Your task to perform on an android device: make emails show in primary in the gmail app Image 0: 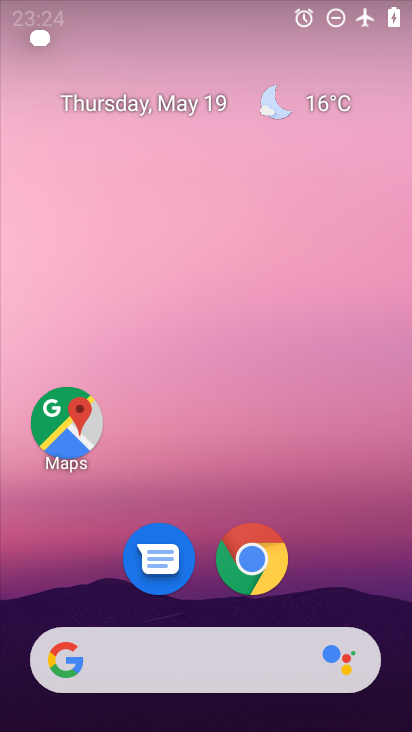
Step 0: drag from (218, 721) to (213, 180)
Your task to perform on an android device: make emails show in primary in the gmail app Image 1: 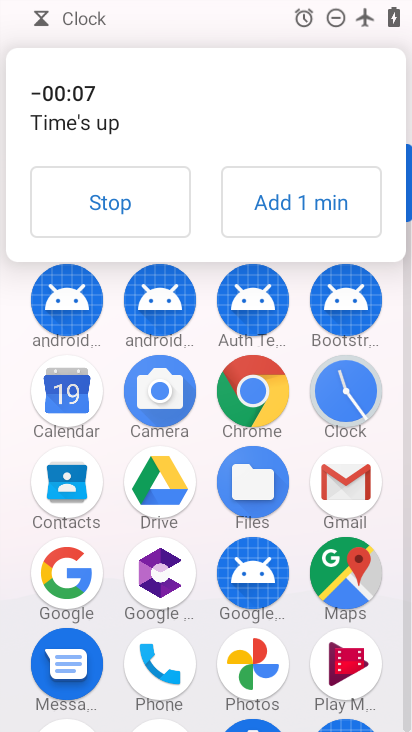
Step 1: click (346, 479)
Your task to perform on an android device: make emails show in primary in the gmail app Image 2: 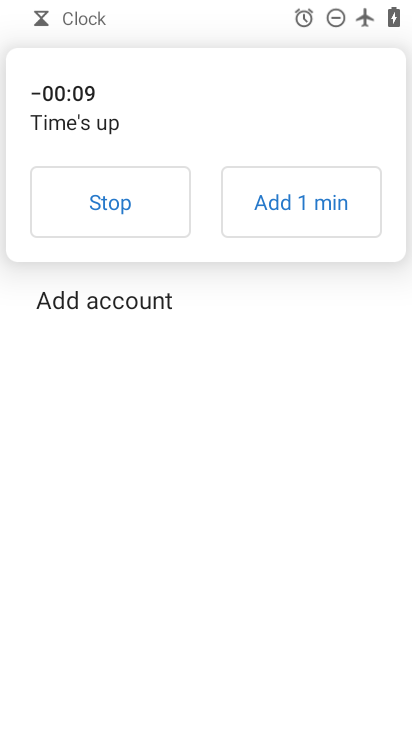
Step 2: click (111, 197)
Your task to perform on an android device: make emails show in primary in the gmail app Image 3: 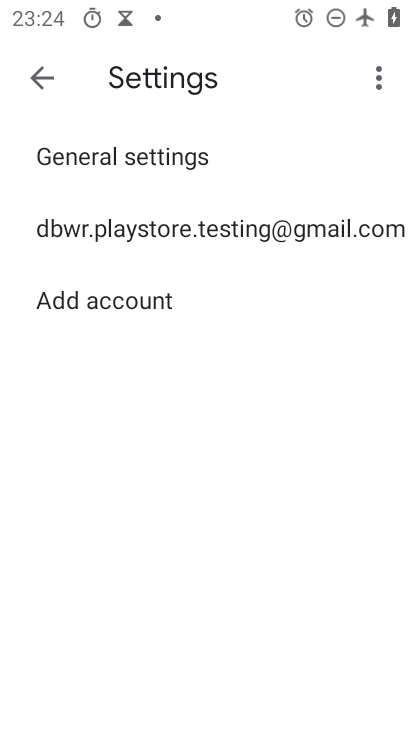
Step 3: click (215, 221)
Your task to perform on an android device: make emails show in primary in the gmail app Image 4: 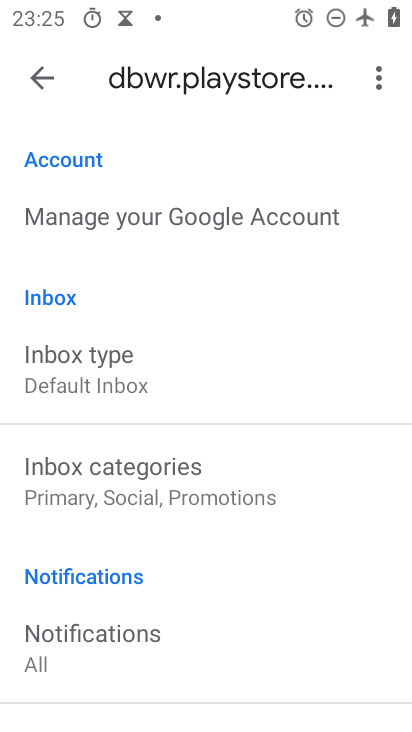
Step 4: drag from (128, 569) to (134, 457)
Your task to perform on an android device: make emails show in primary in the gmail app Image 5: 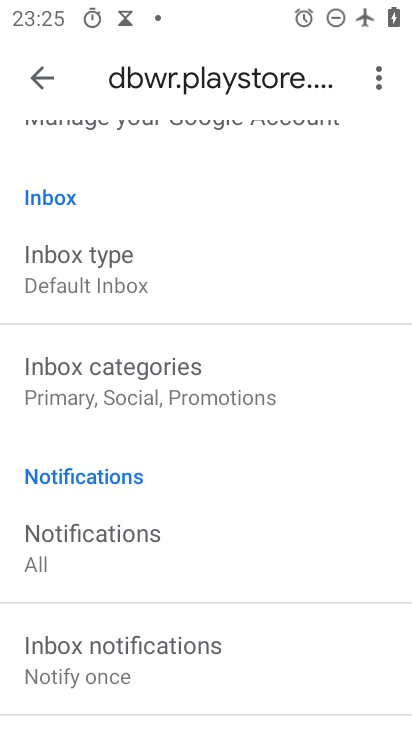
Step 5: click (117, 392)
Your task to perform on an android device: make emails show in primary in the gmail app Image 6: 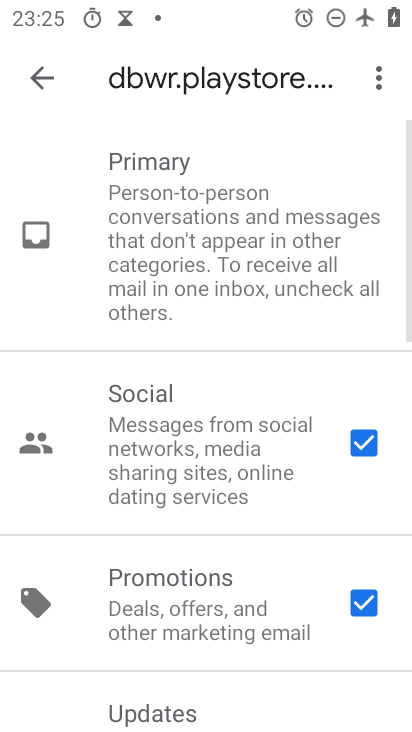
Step 6: click (368, 437)
Your task to perform on an android device: make emails show in primary in the gmail app Image 7: 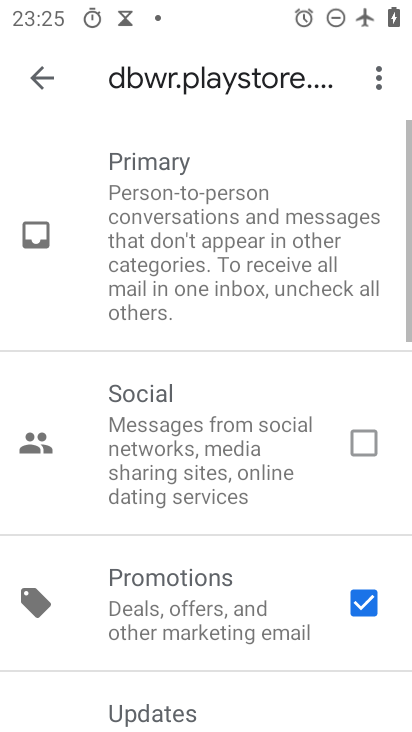
Step 7: click (366, 598)
Your task to perform on an android device: make emails show in primary in the gmail app Image 8: 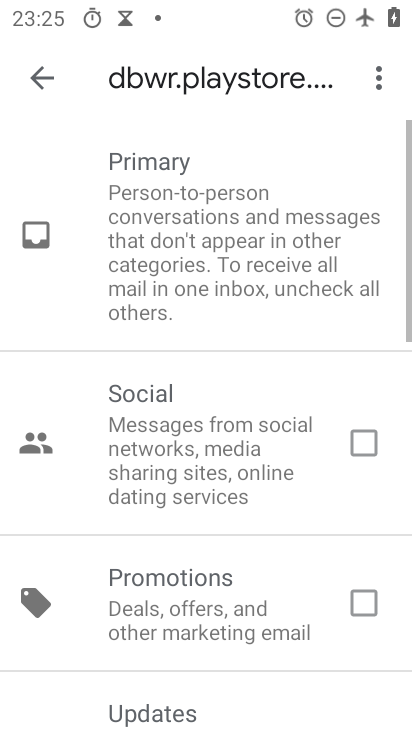
Step 8: drag from (269, 664) to (270, 364)
Your task to perform on an android device: make emails show in primary in the gmail app Image 9: 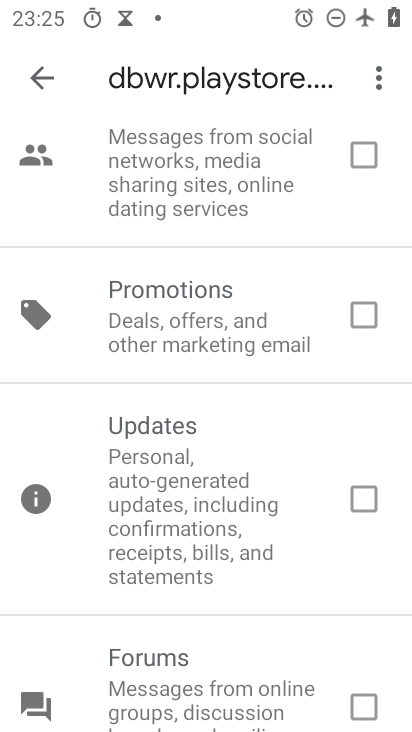
Step 9: click (44, 80)
Your task to perform on an android device: make emails show in primary in the gmail app Image 10: 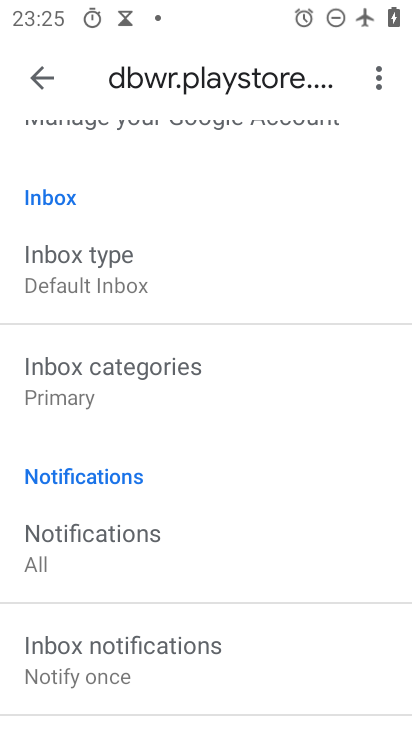
Step 10: task complete